Your task to perform on an android device: toggle show notifications on the lock screen Image 0: 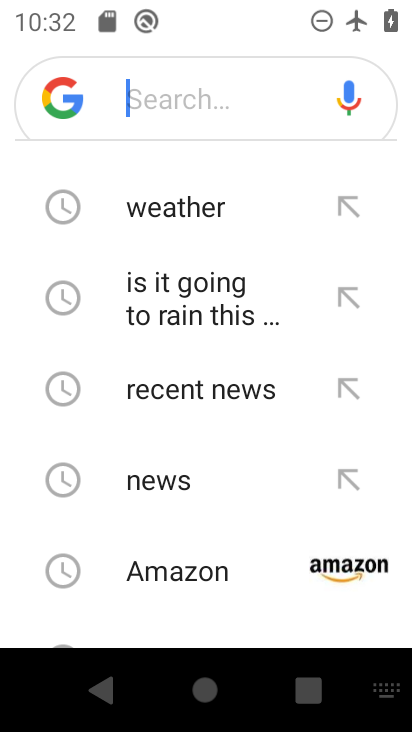
Step 0: press back button
Your task to perform on an android device: toggle show notifications on the lock screen Image 1: 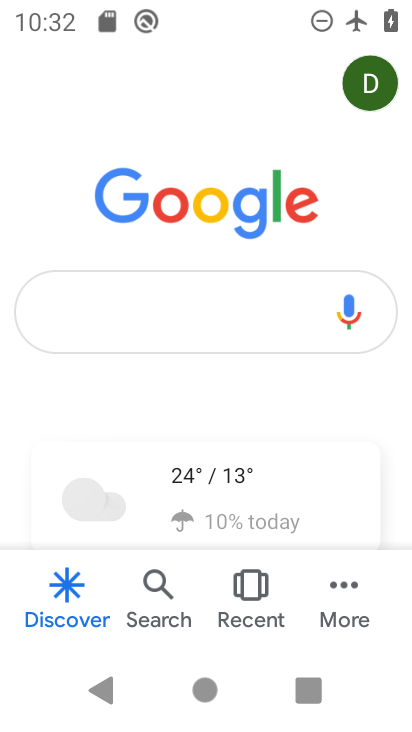
Step 1: press back button
Your task to perform on an android device: toggle show notifications on the lock screen Image 2: 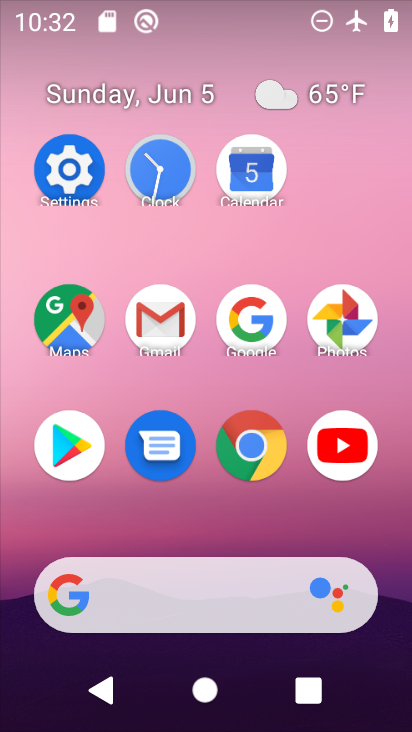
Step 2: click (61, 141)
Your task to perform on an android device: toggle show notifications on the lock screen Image 3: 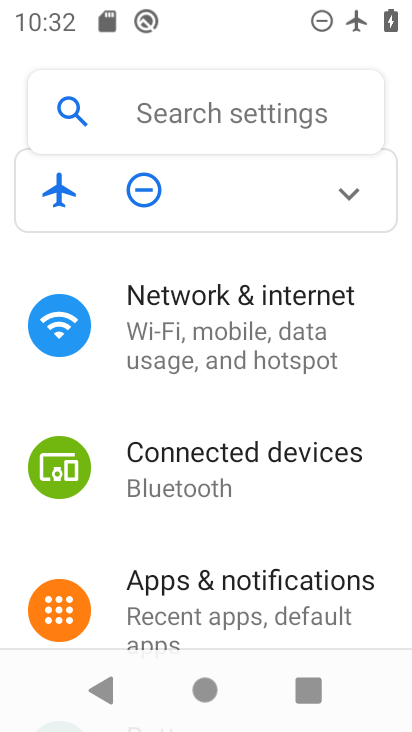
Step 3: click (254, 597)
Your task to perform on an android device: toggle show notifications on the lock screen Image 4: 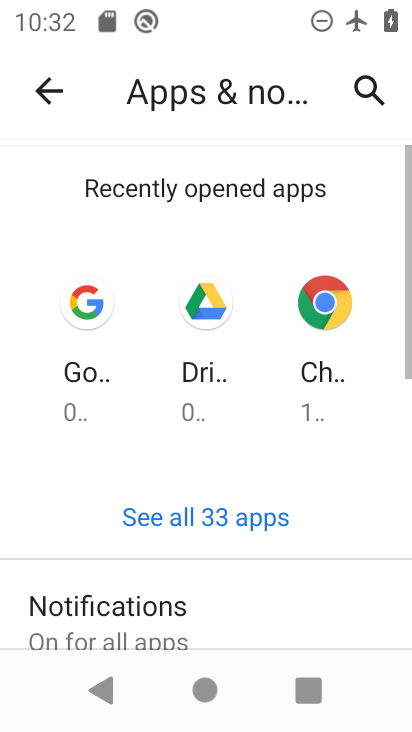
Step 4: drag from (254, 597) to (259, 165)
Your task to perform on an android device: toggle show notifications on the lock screen Image 5: 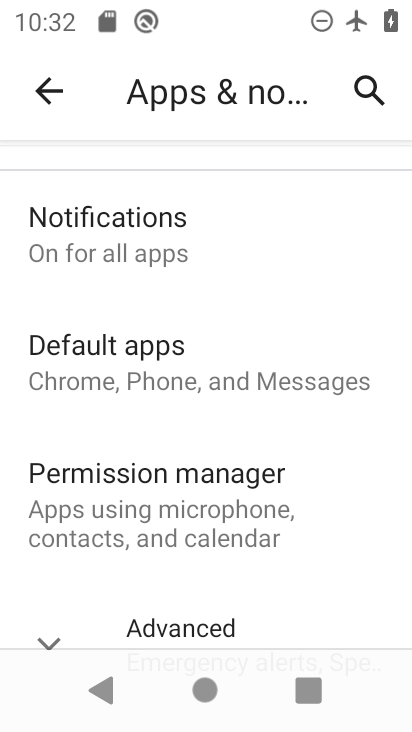
Step 5: click (276, 631)
Your task to perform on an android device: toggle show notifications on the lock screen Image 6: 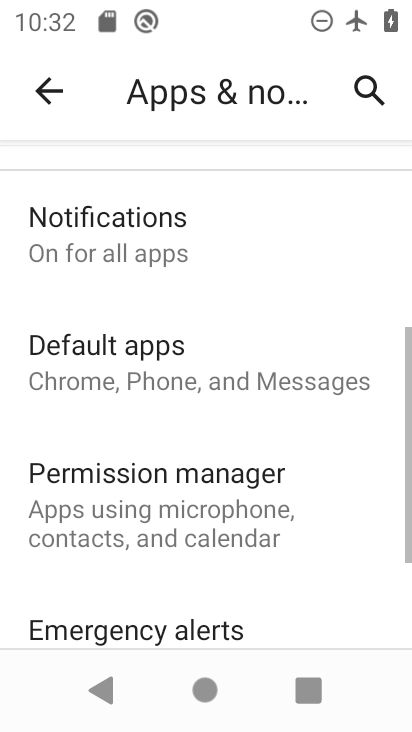
Step 6: drag from (276, 631) to (243, 110)
Your task to perform on an android device: toggle show notifications on the lock screen Image 7: 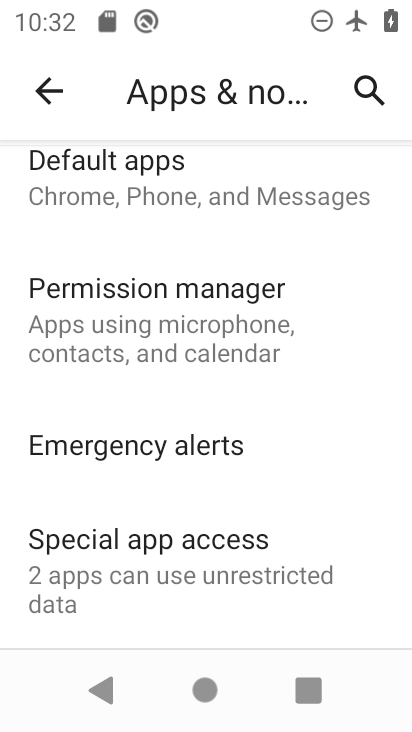
Step 7: drag from (290, 189) to (291, 578)
Your task to perform on an android device: toggle show notifications on the lock screen Image 8: 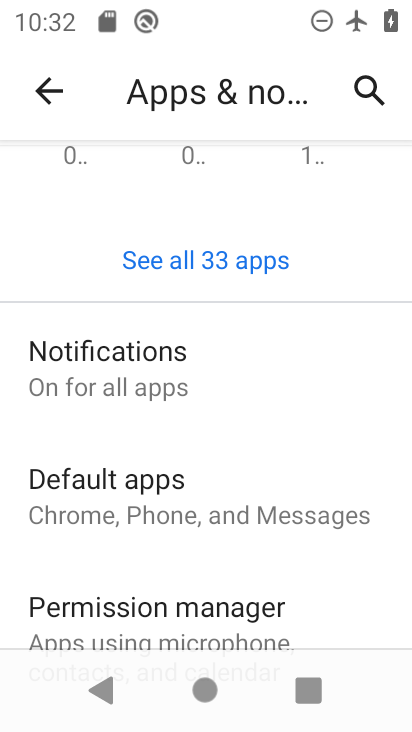
Step 8: drag from (268, 406) to (237, 610)
Your task to perform on an android device: toggle show notifications on the lock screen Image 9: 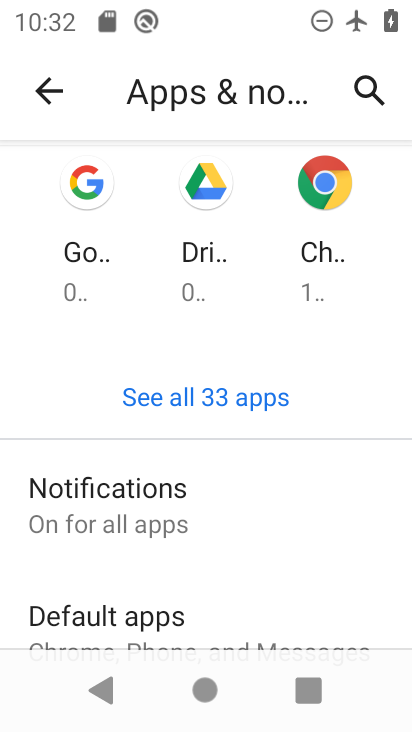
Step 9: click (235, 506)
Your task to perform on an android device: toggle show notifications on the lock screen Image 10: 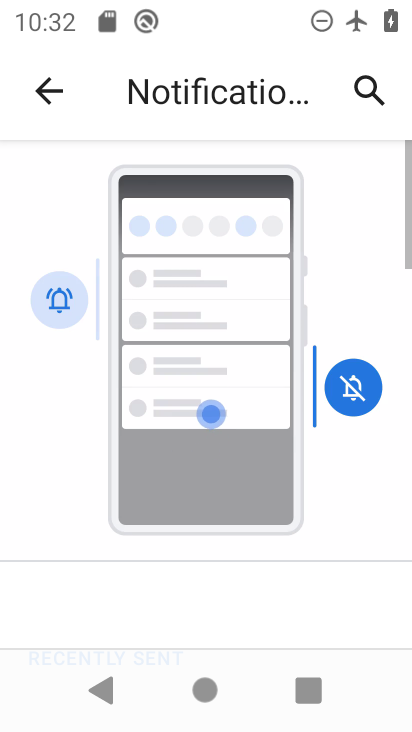
Step 10: drag from (236, 548) to (228, 171)
Your task to perform on an android device: toggle show notifications on the lock screen Image 11: 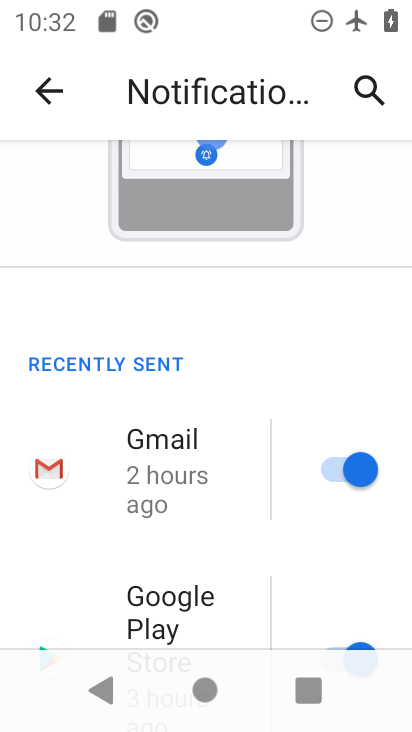
Step 11: drag from (235, 530) to (238, 186)
Your task to perform on an android device: toggle show notifications on the lock screen Image 12: 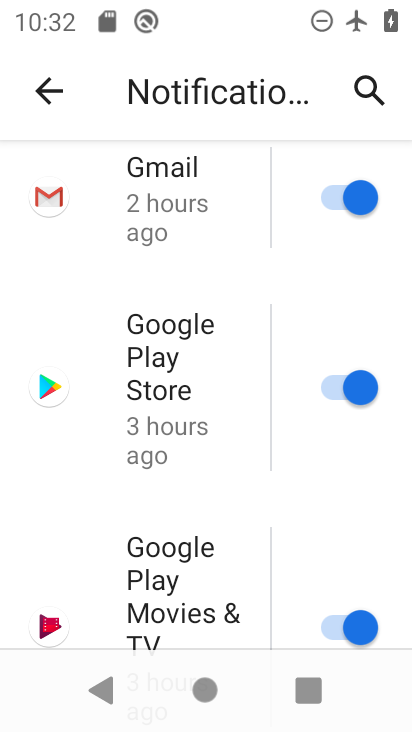
Step 12: drag from (256, 596) to (251, 210)
Your task to perform on an android device: toggle show notifications on the lock screen Image 13: 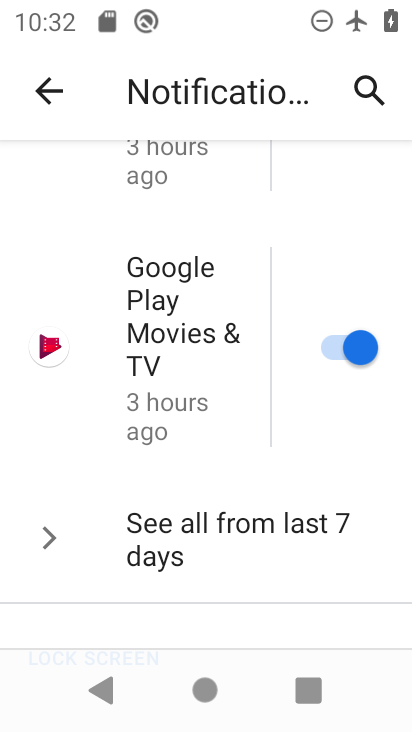
Step 13: drag from (250, 652) to (262, 258)
Your task to perform on an android device: toggle show notifications on the lock screen Image 14: 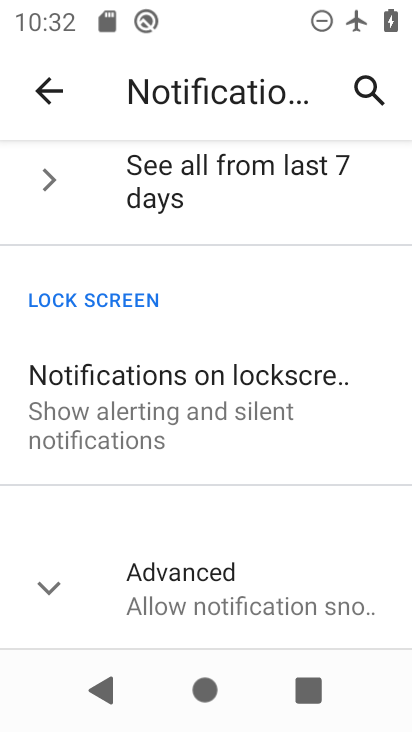
Step 14: click (271, 450)
Your task to perform on an android device: toggle show notifications on the lock screen Image 15: 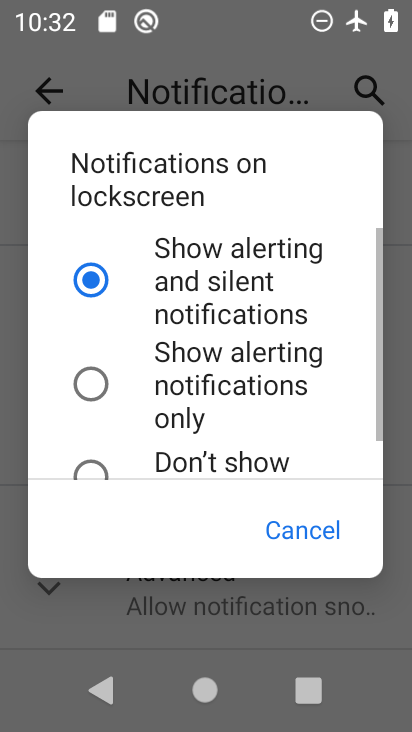
Step 15: click (201, 355)
Your task to perform on an android device: toggle show notifications on the lock screen Image 16: 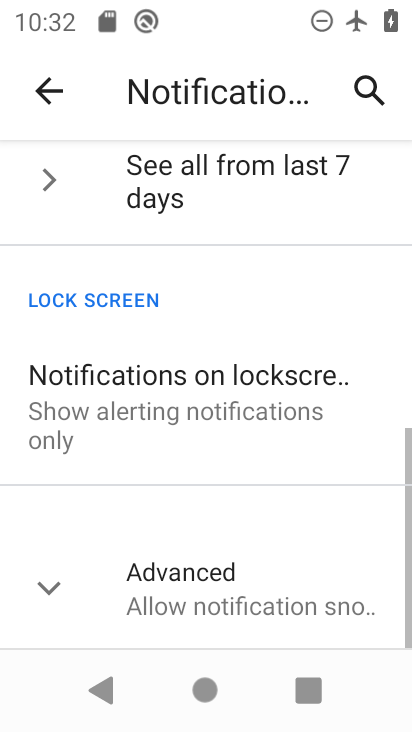
Step 16: task complete